Your task to perform on an android device: toggle improve location accuracy Image 0: 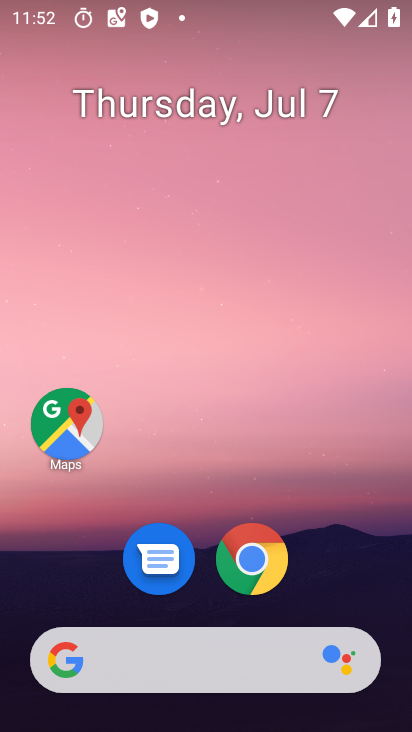
Step 0: drag from (348, 583) to (347, 143)
Your task to perform on an android device: toggle improve location accuracy Image 1: 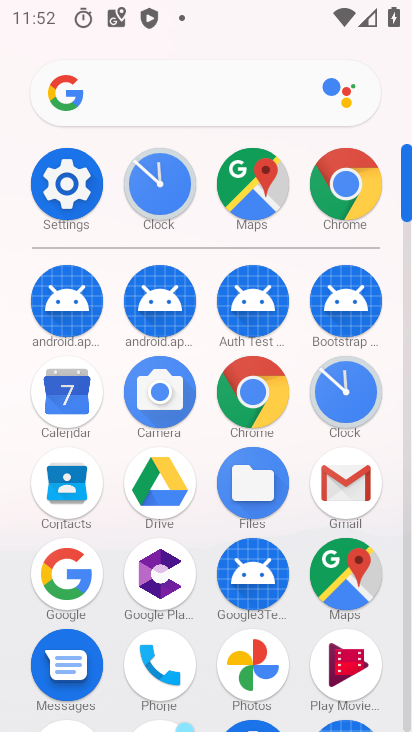
Step 1: click (72, 191)
Your task to perform on an android device: toggle improve location accuracy Image 2: 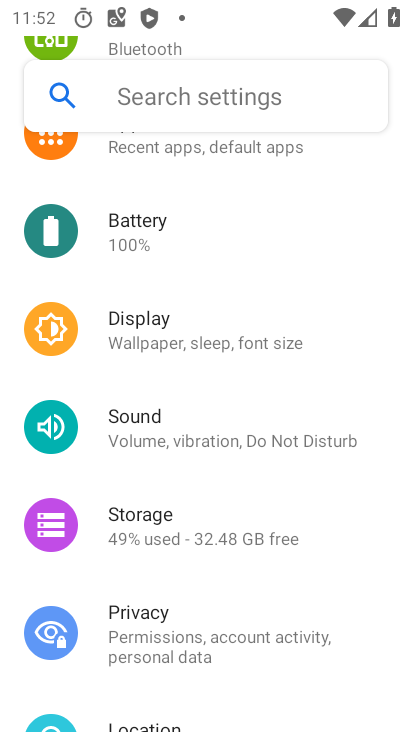
Step 2: drag from (320, 228) to (350, 375)
Your task to perform on an android device: toggle improve location accuracy Image 3: 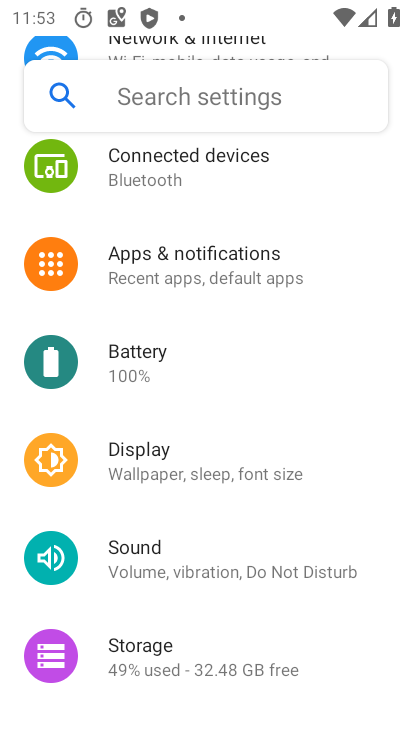
Step 3: drag from (360, 455) to (337, 314)
Your task to perform on an android device: toggle improve location accuracy Image 4: 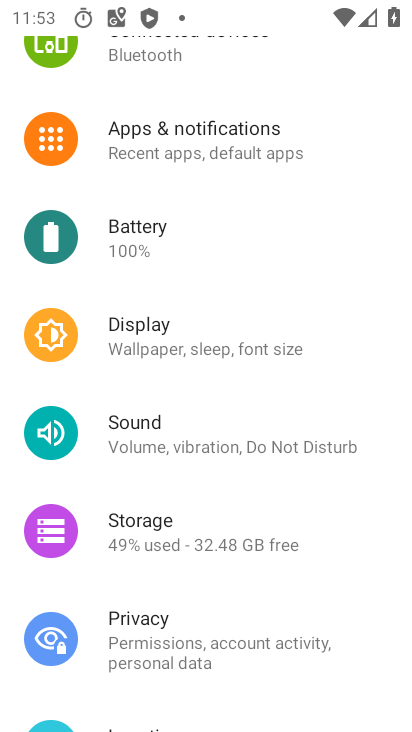
Step 4: drag from (368, 221) to (371, 474)
Your task to perform on an android device: toggle improve location accuracy Image 5: 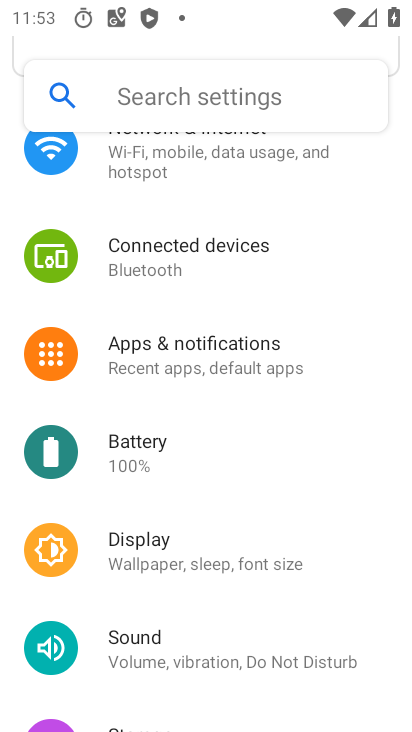
Step 5: drag from (344, 258) to (358, 416)
Your task to perform on an android device: toggle improve location accuracy Image 6: 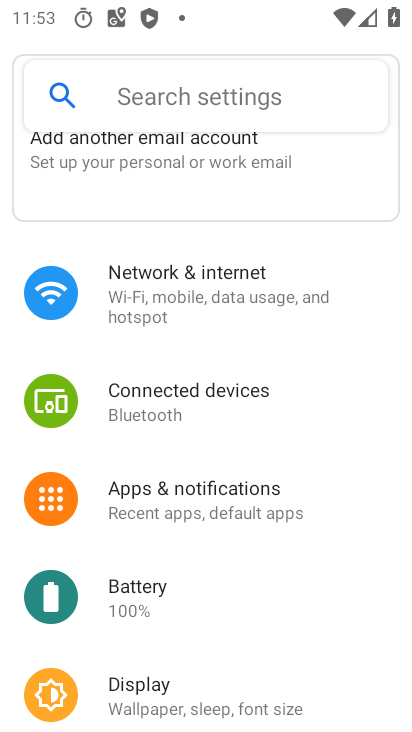
Step 6: drag from (346, 555) to (349, 375)
Your task to perform on an android device: toggle improve location accuracy Image 7: 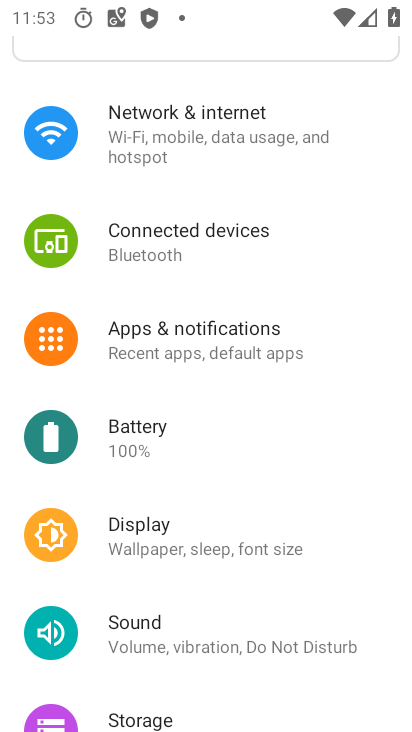
Step 7: drag from (367, 547) to (364, 426)
Your task to perform on an android device: toggle improve location accuracy Image 8: 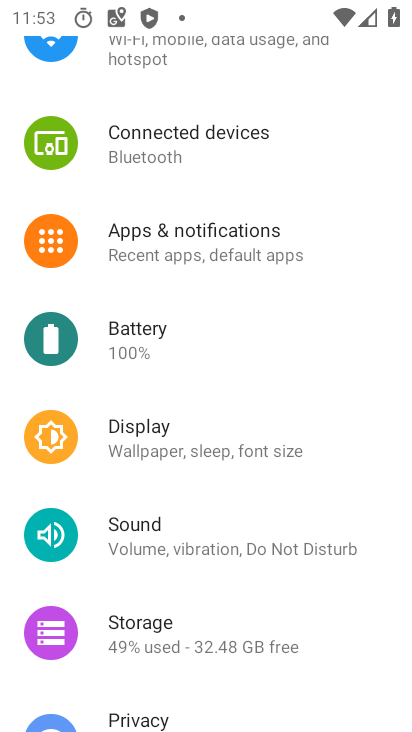
Step 8: drag from (357, 607) to (357, 446)
Your task to perform on an android device: toggle improve location accuracy Image 9: 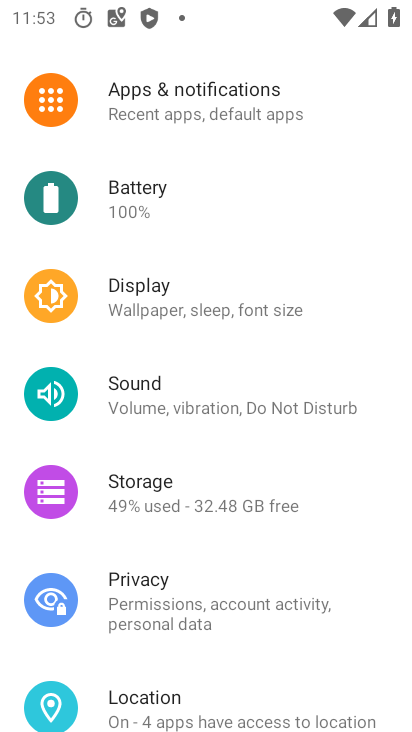
Step 9: drag from (379, 552) to (380, 361)
Your task to perform on an android device: toggle improve location accuracy Image 10: 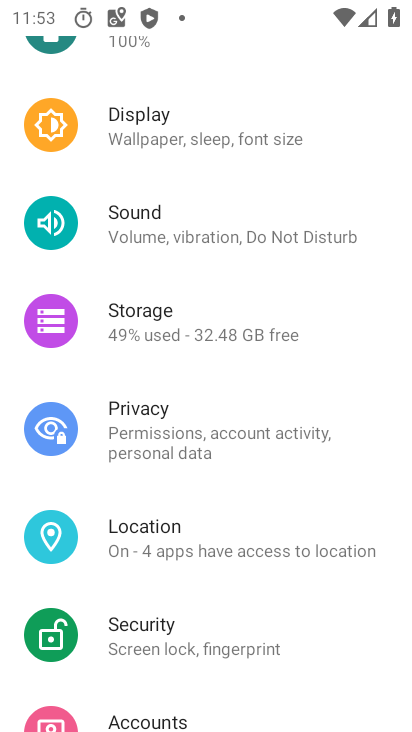
Step 10: drag from (364, 587) to (360, 420)
Your task to perform on an android device: toggle improve location accuracy Image 11: 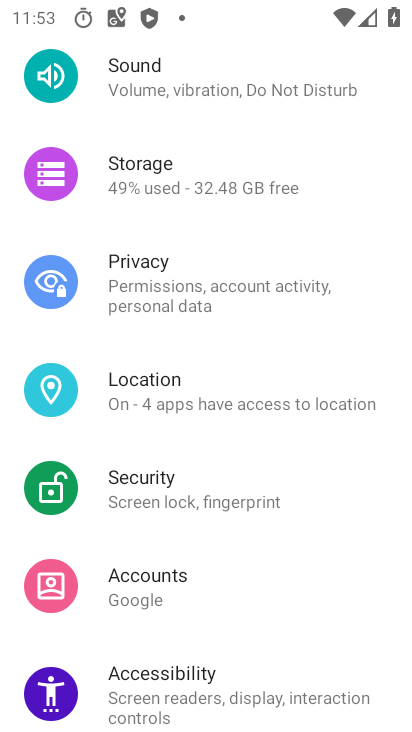
Step 11: click (322, 374)
Your task to perform on an android device: toggle improve location accuracy Image 12: 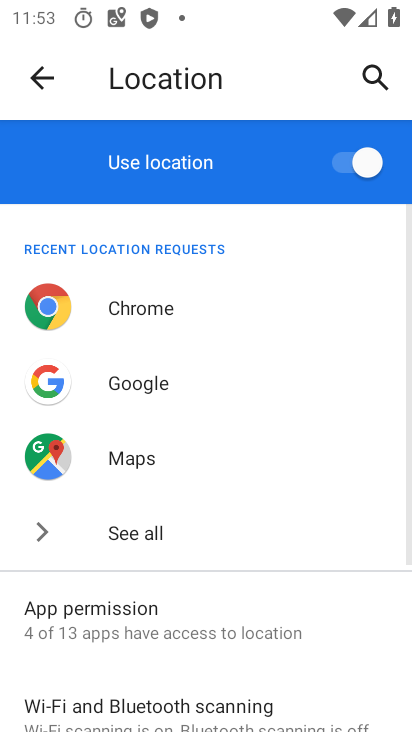
Step 12: drag from (318, 491) to (318, 270)
Your task to perform on an android device: toggle improve location accuracy Image 13: 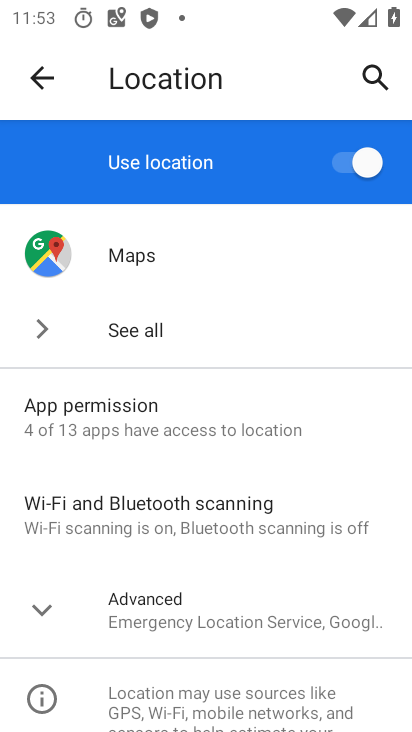
Step 13: drag from (357, 552) to (362, 350)
Your task to perform on an android device: toggle improve location accuracy Image 14: 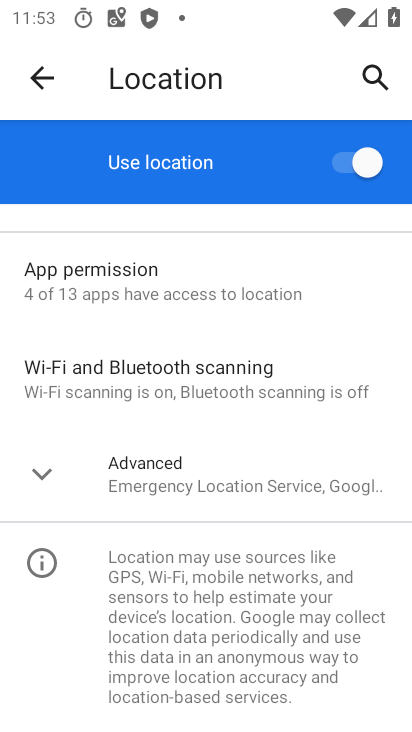
Step 14: click (277, 476)
Your task to perform on an android device: toggle improve location accuracy Image 15: 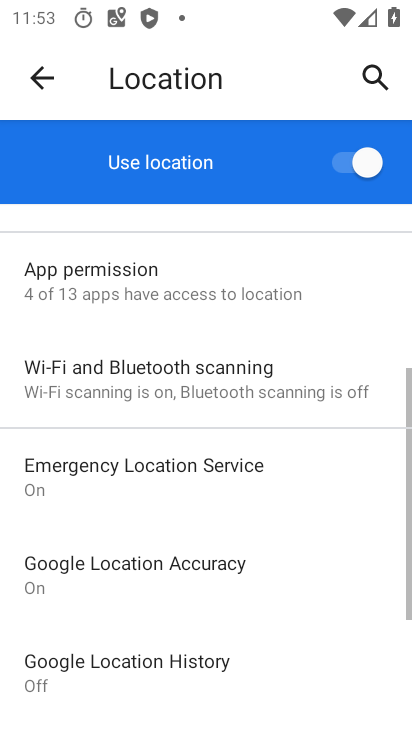
Step 15: drag from (318, 587) to (341, 415)
Your task to perform on an android device: toggle improve location accuracy Image 16: 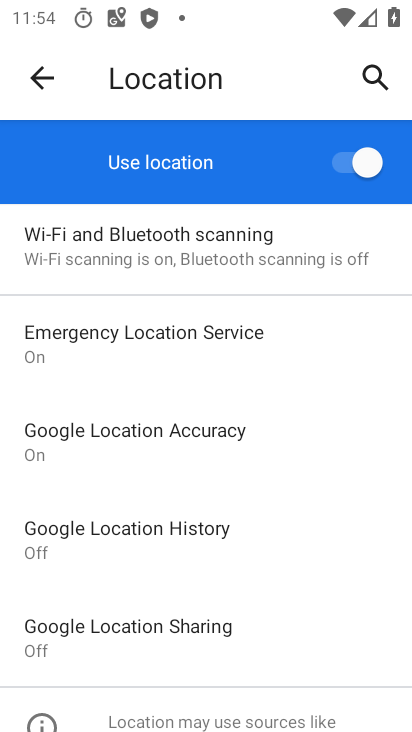
Step 16: click (210, 439)
Your task to perform on an android device: toggle improve location accuracy Image 17: 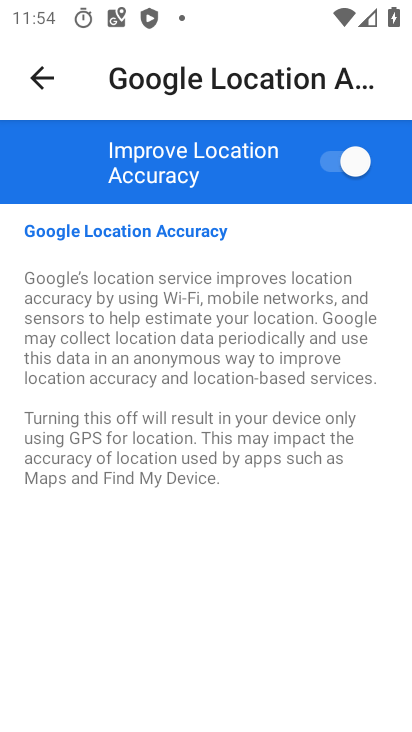
Step 17: click (356, 160)
Your task to perform on an android device: toggle improve location accuracy Image 18: 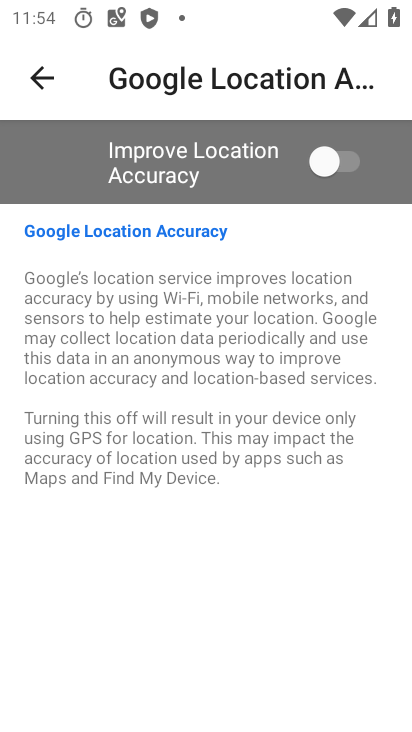
Step 18: task complete